Your task to perform on an android device: Search for Mexican restaurants on Maps Image 0: 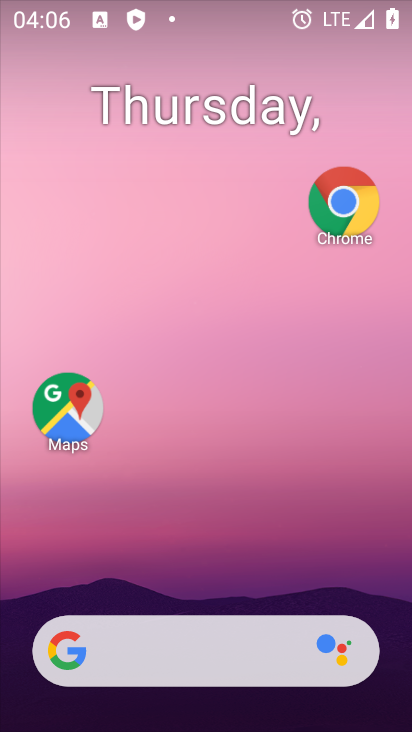
Step 0: drag from (274, 644) to (228, 5)
Your task to perform on an android device: Search for Mexican restaurants on Maps Image 1: 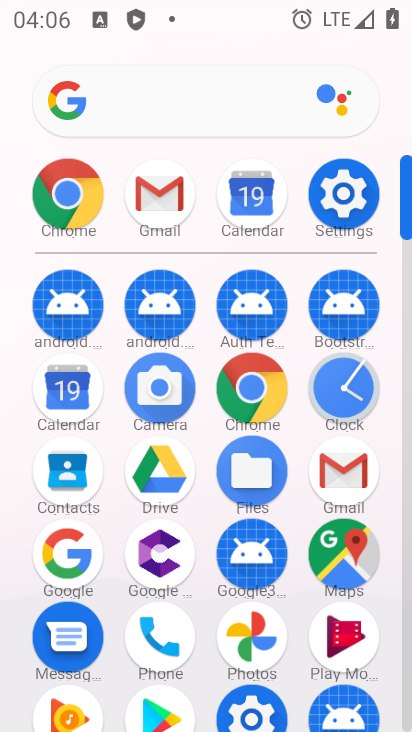
Step 1: click (338, 550)
Your task to perform on an android device: Search for Mexican restaurants on Maps Image 2: 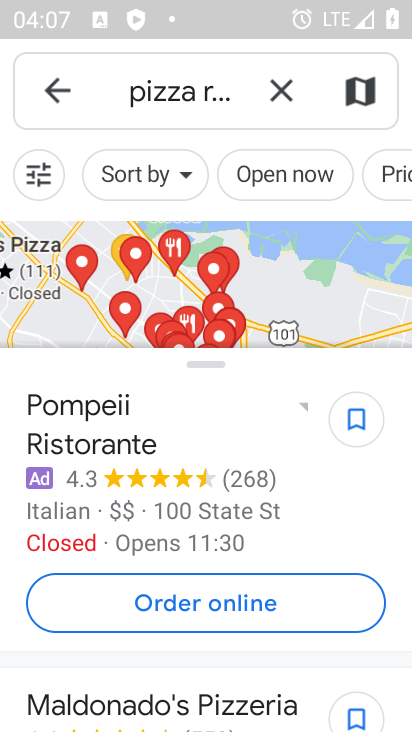
Step 2: click (281, 85)
Your task to perform on an android device: Search for Mexican restaurants on Maps Image 3: 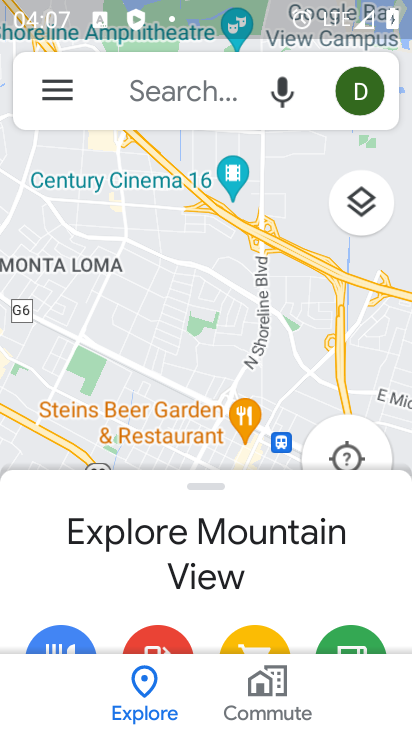
Step 3: click (201, 109)
Your task to perform on an android device: Search for Mexican restaurants on Maps Image 4: 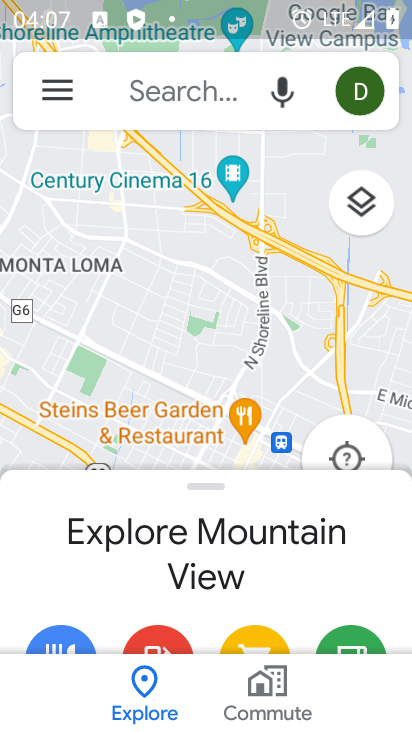
Step 4: click (201, 109)
Your task to perform on an android device: Search for Mexican restaurants on Maps Image 5: 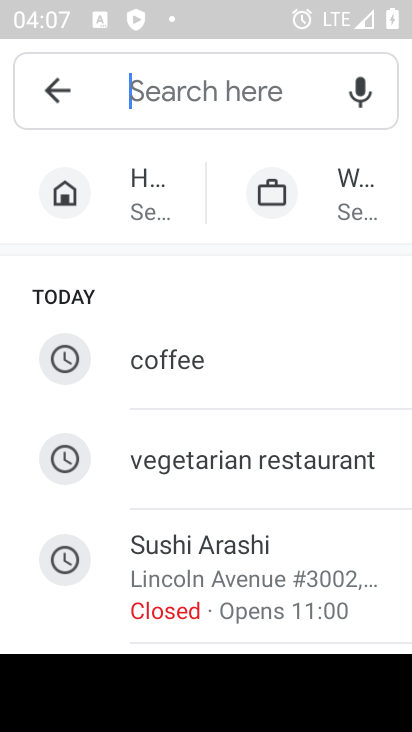
Step 5: type "mexican restaurant"
Your task to perform on an android device: Search for Mexican restaurants on Maps Image 6: 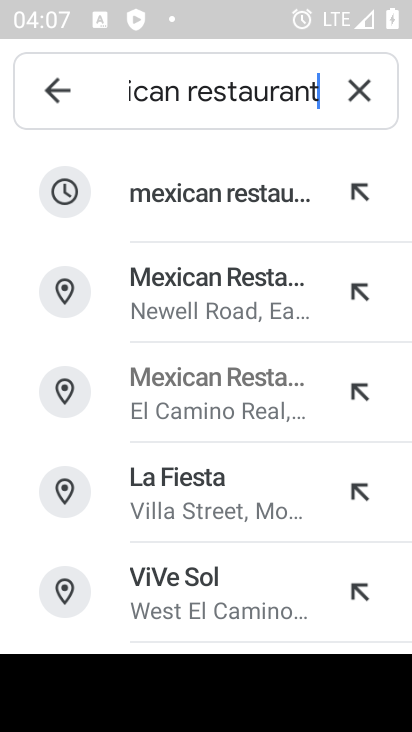
Step 6: click (216, 210)
Your task to perform on an android device: Search for Mexican restaurants on Maps Image 7: 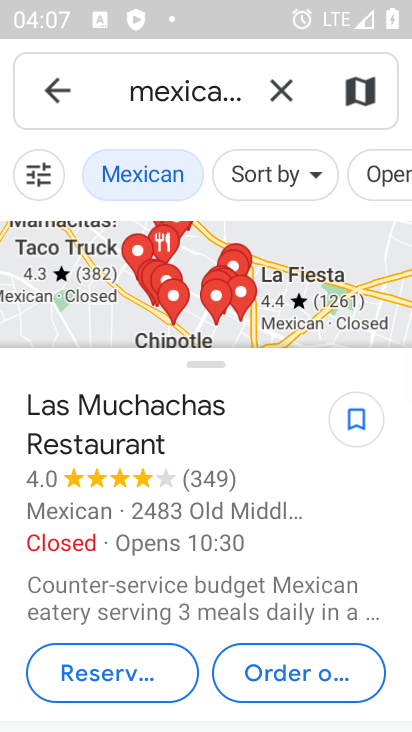
Step 7: task complete